Your task to perform on an android device: Show me the alarms in the clock app Image 0: 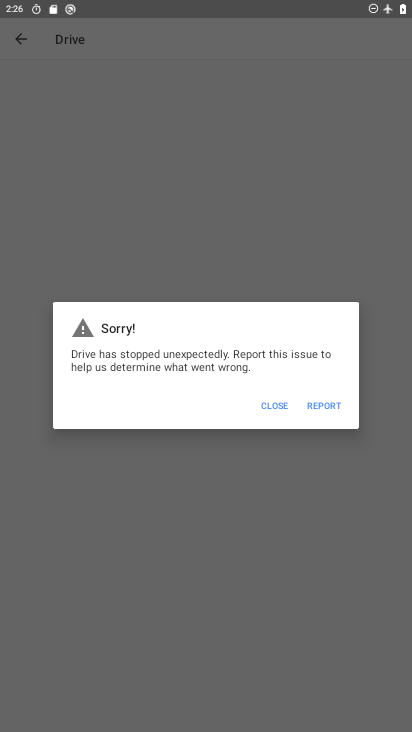
Step 0: press home button
Your task to perform on an android device: Show me the alarms in the clock app Image 1: 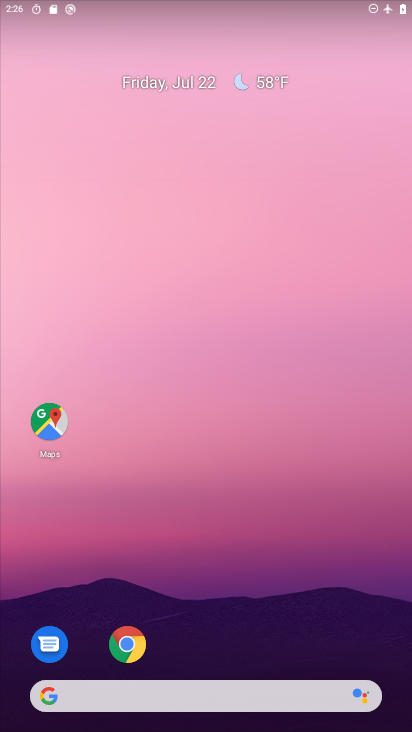
Step 1: drag from (232, 576) to (232, 204)
Your task to perform on an android device: Show me the alarms in the clock app Image 2: 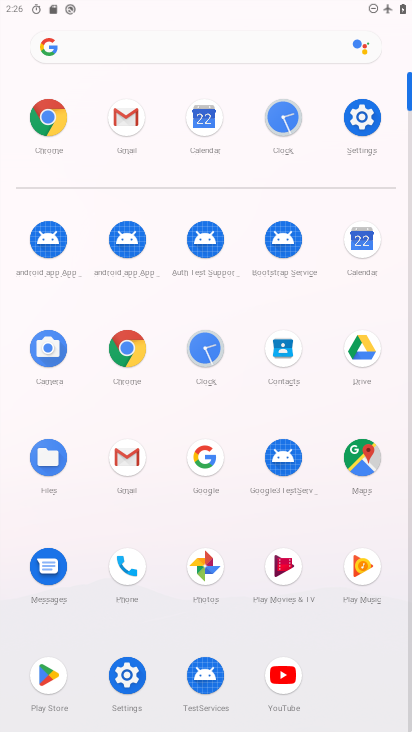
Step 2: click (275, 132)
Your task to perform on an android device: Show me the alarms in the clock app Image 3: 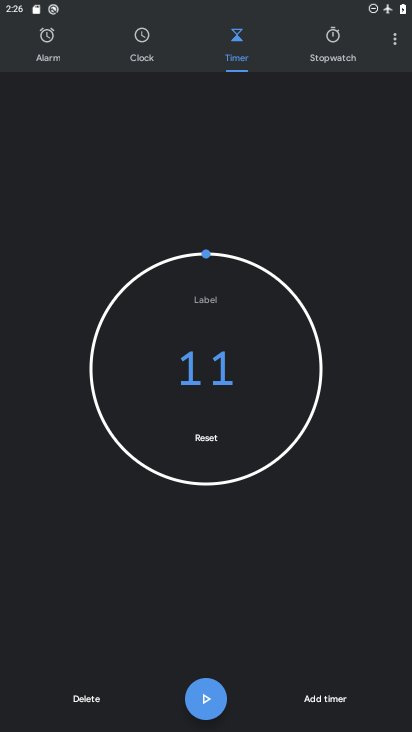
Step 3: click (386, 37)
Your task to perform on an android device: Show me the alarms in the clock app Image 4: 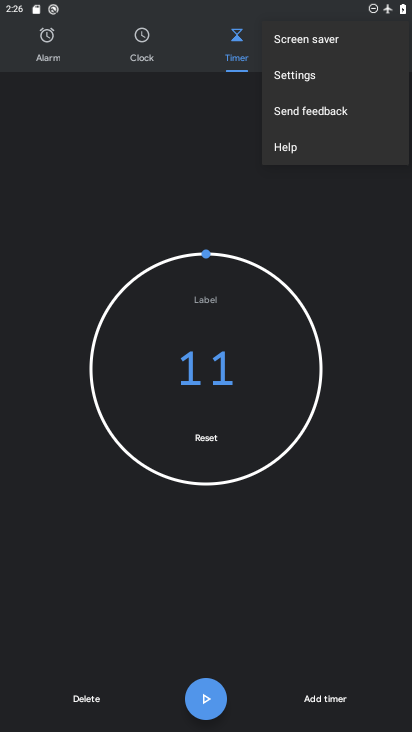
Step 4: click (59, 50)
Your task to perform on an android device: Show me the alarms in the clock app Image 5: 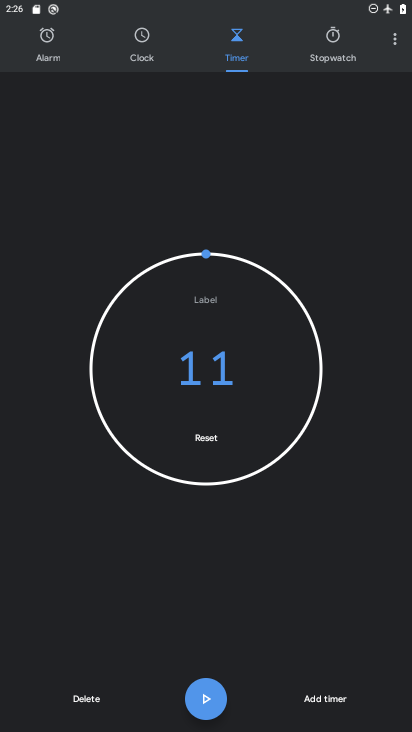
Step 5: click (40, 48)
Your task to perform on an android device: Show me the alarms in the clock app Image 6: 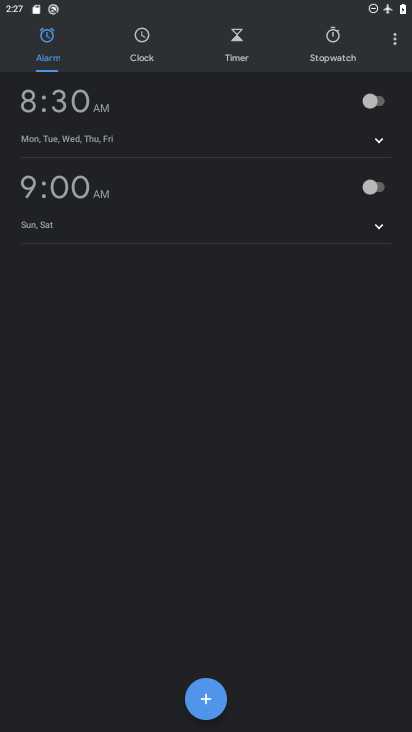
Step 6: task complete